Your task to perform on an android device: Open Chrome and go to settings Image 0: 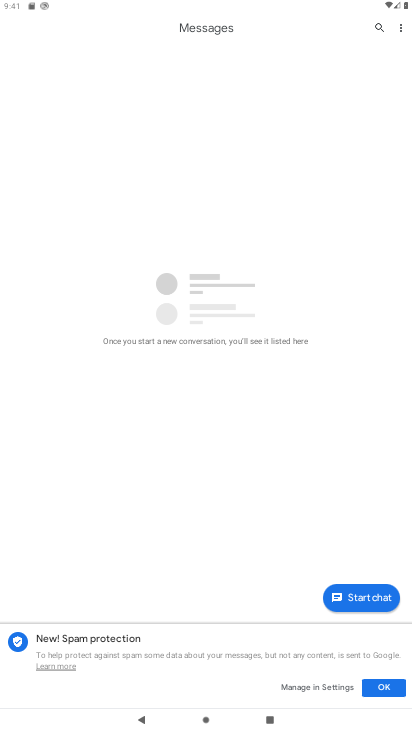
Step 0: press home button
Your task to perform on an android device: Open Chrome and go to settings Image 1: 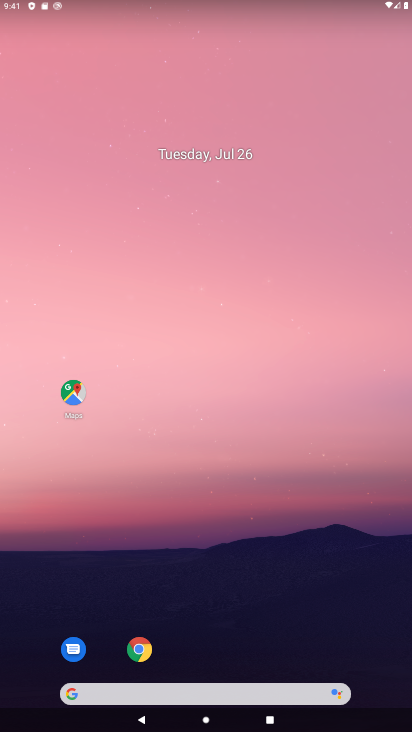
Step 1: click (135, 654)
Your task to perform on an android device: Open Chrome and go to settings Image 2: 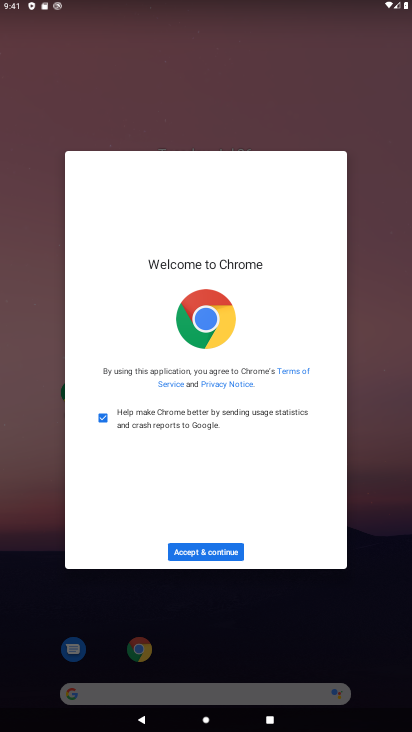
Step 2: click (176, 549)
Your task to perform on an android device: Open Chrome and go to settings Image 3: 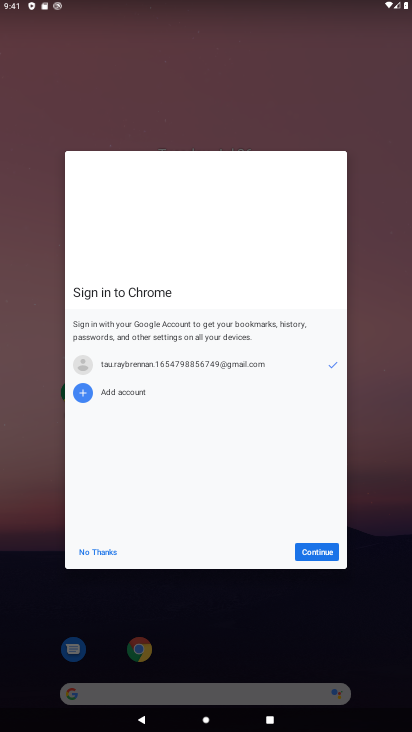
Step 3: click (309, 560)
Your task to perform on an android device: Open Chrome and go to settings Image 4: 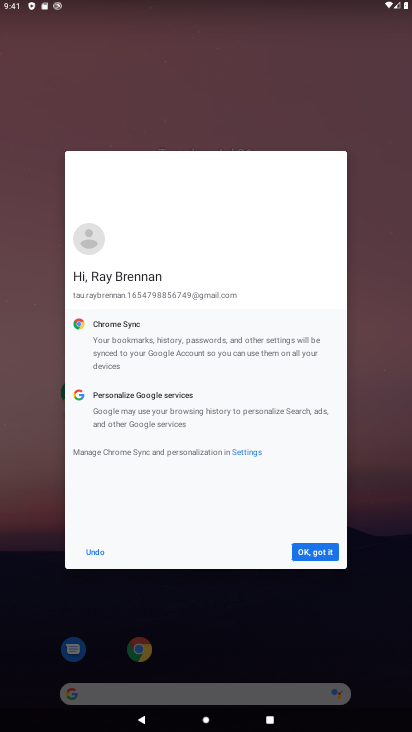
Step 4: click (309, 560)
Your task to perform on an android device: Open Chrome and go to settings Image 5: 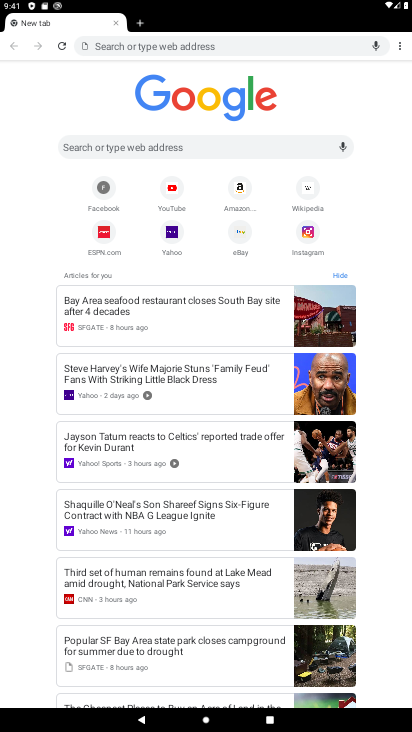
Step 5: click (402, 49)
Your task to perform on an android device: Open Chrome and go to settings Image 6: 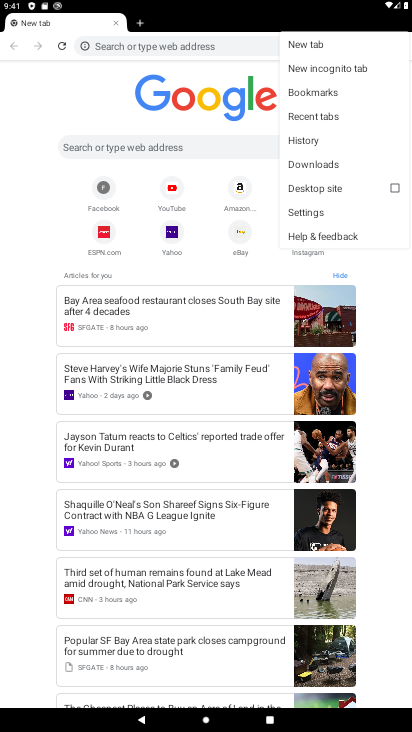
Step 6: click (336, 211)
Your task to perform on an android device: Open Chrome and go to settings Image 7: 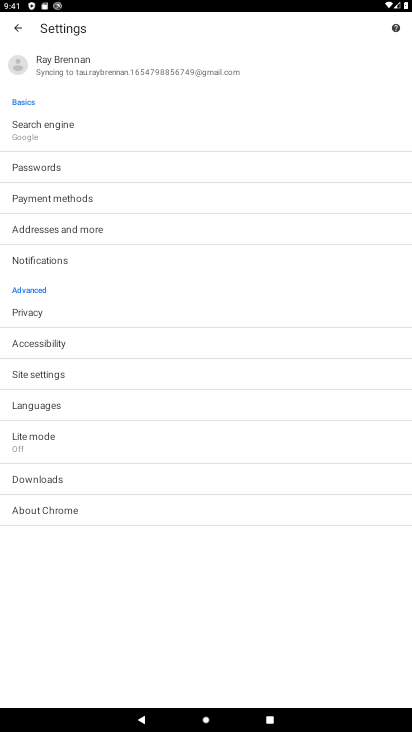
Step 7: task complete